Your task to perform on an android device: Open Chrome and go to settings Image 0: 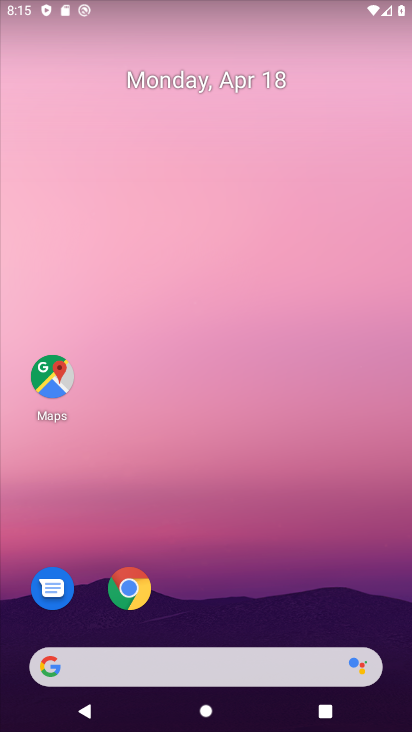
Step 0: click (133, 596)
Your task to perform on an android device: Open Chrome and go to settings Image 1: 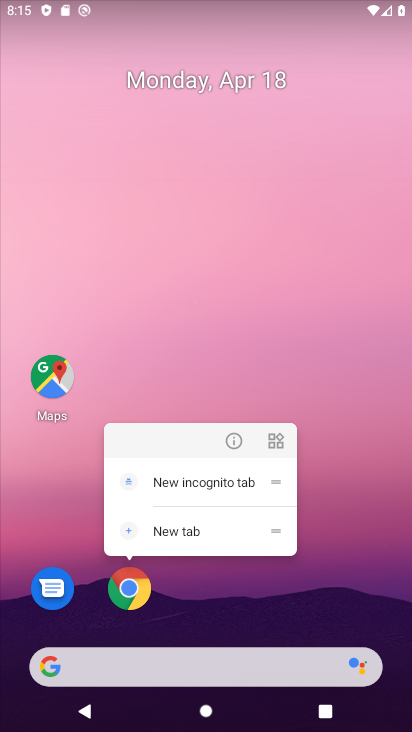
Step 1: click (133, 596)
Your task to perform on an android device: Open Chrome and go to settings Image 2: 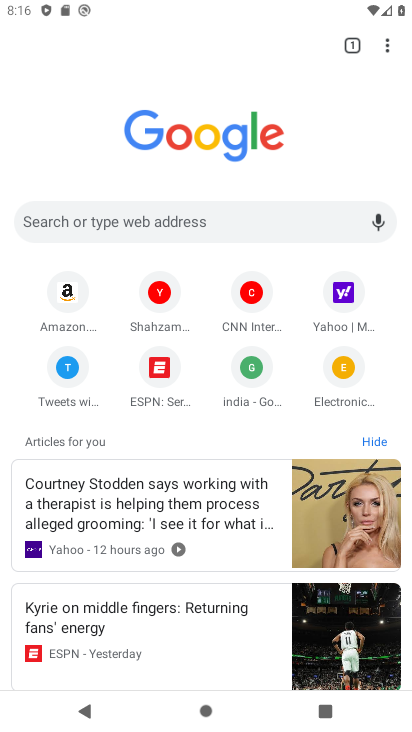
Step 2: click (381, 42)
Your task to perform on an android device: Open Chrome and go to settings Image 3: 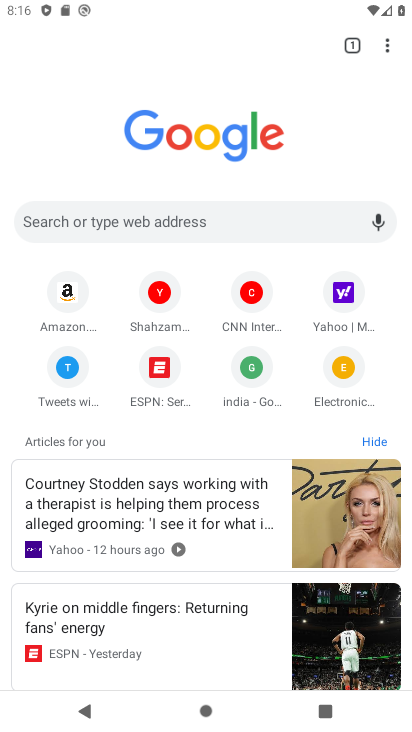
Step 3: click (385, 50)
Your task to perform on an android device: Open Chrome and go to settings Image 4: 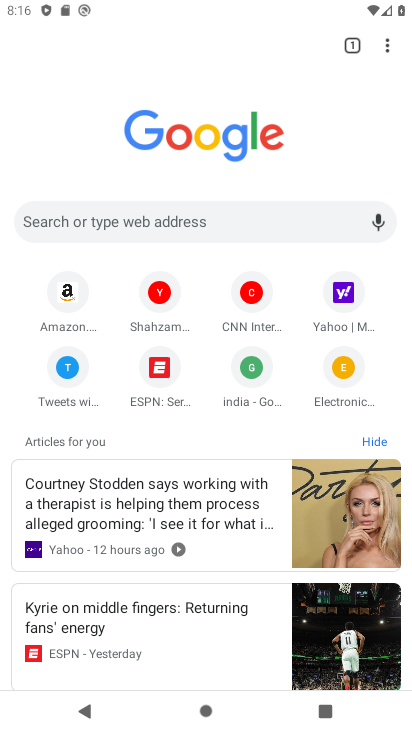
Step 4: click (389, 48)
Your task to perform on an android device: Open Chrome and go to settings Image 5: 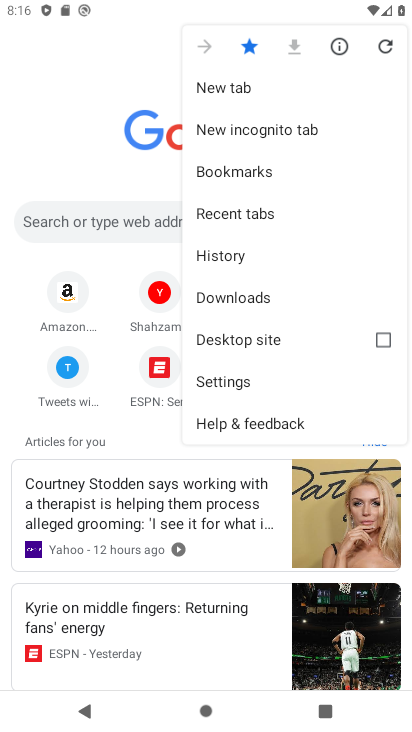
Step 5: click (220, 380)
Your task to perform on an android device: Open Chrome and go to settings Image 6: 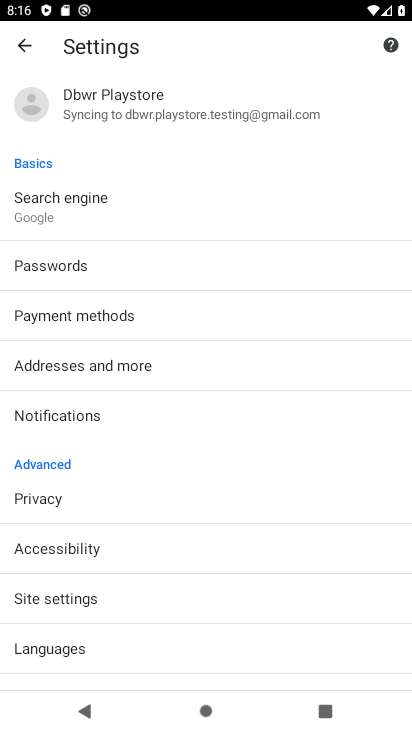
Step 6: task complete